Your task to perform on an android device: see creations saved in the google photos Image 0: 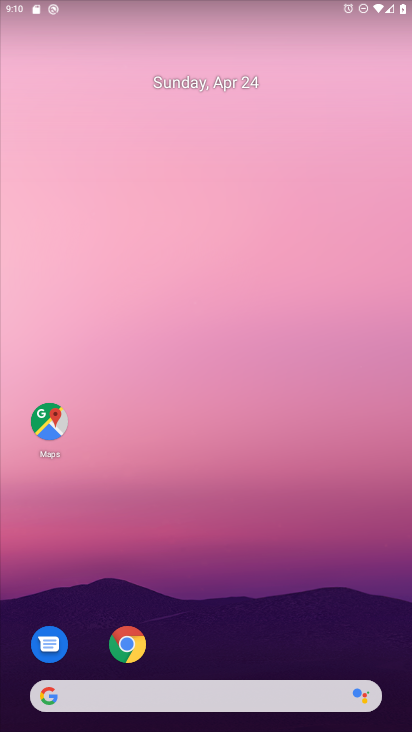
Step 0: drag from (216, 668) to (0, 160)
Your task to perform on an android device: see creations saved in the google photos Image 1: 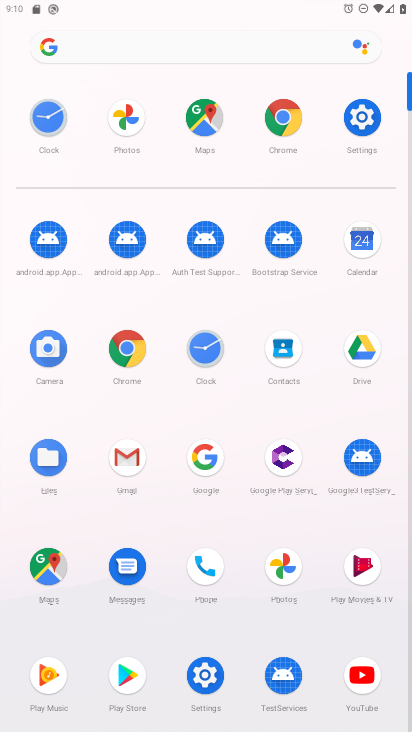
Step 1: click (291, 574)
Your task to perform on an android device: see creations saved in the google photos Image 2: 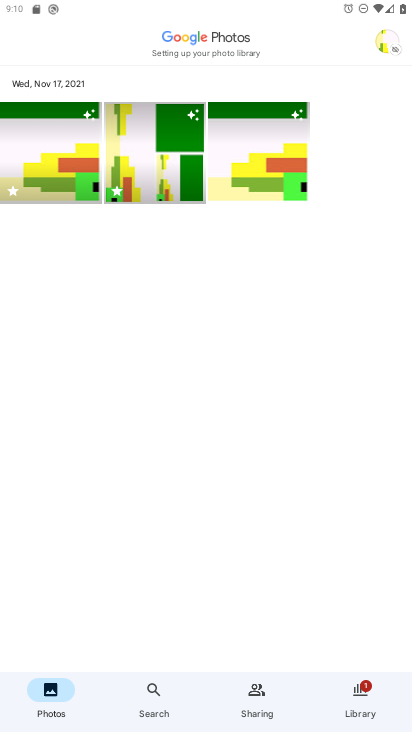
Step 2: click (347, 696)
Your task to perform on an android device: see creations saved in the google photos Image 3: 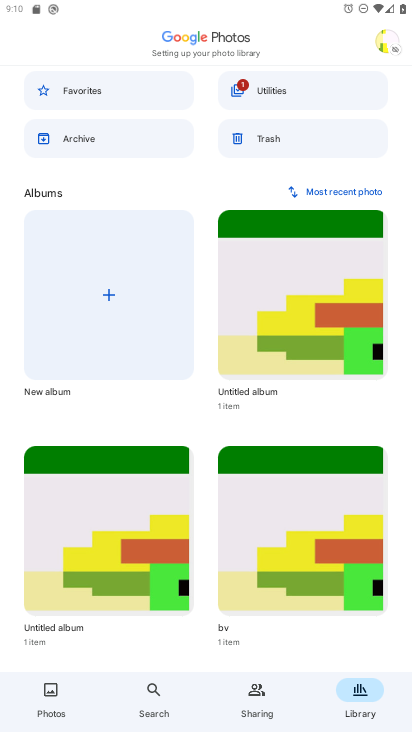
Step 3: drag from (207, 603) to (200, 99)
Your task to perform on an android device: see creations saved in the google photos Image 4: 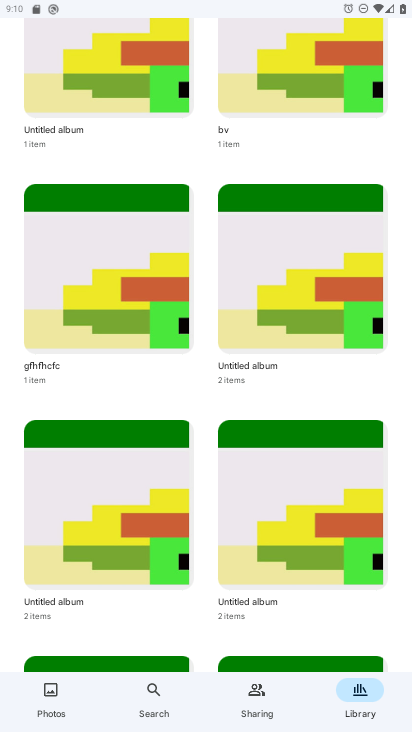
Step 4: drag from (254, 564) to (241, 305)
Your task to perform on an android device: see creations saved in the google photos Image 5: 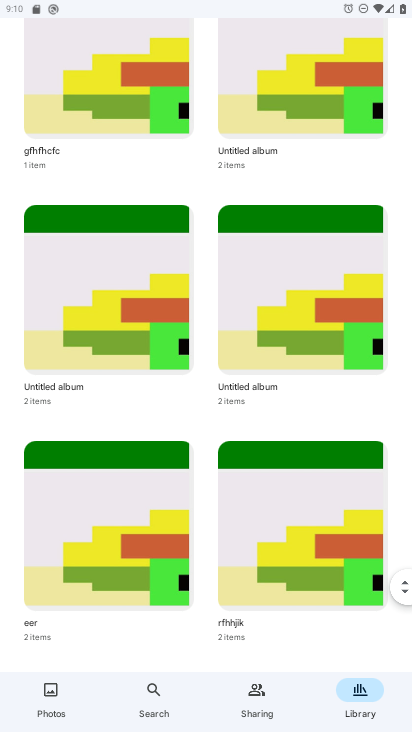
Step 5: click (269, 701)
Your task to perform on an android device: see creations saved in the google photos Image 6: 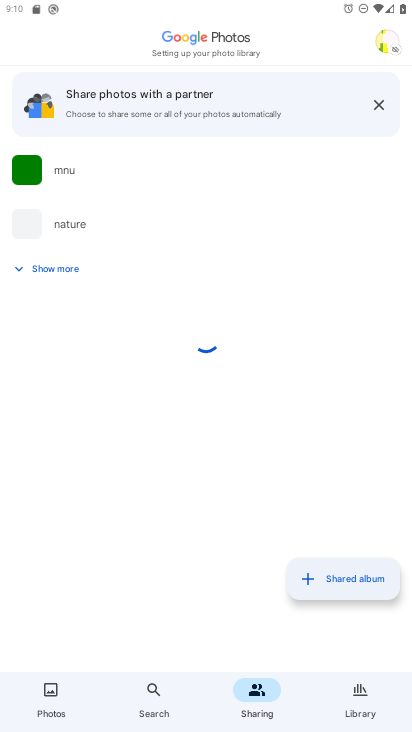
Step 6: click (377, 99)
Your task to perform on an android device: see creations saved in the google photos Image 7: 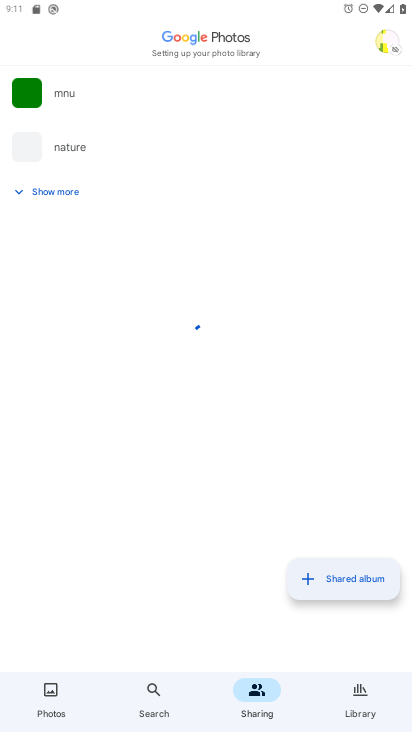
Step 7: click (23, 188)
Your task to perform on an android device: see creations saved in the google photos Image 8: 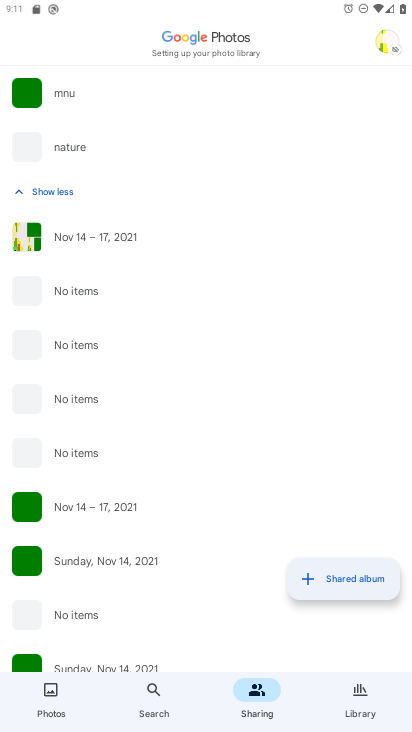
Step 8: drag from (170, 547) to (106, 0)
Your task to perform on an android device: see creations saved in the google photos Image 9: 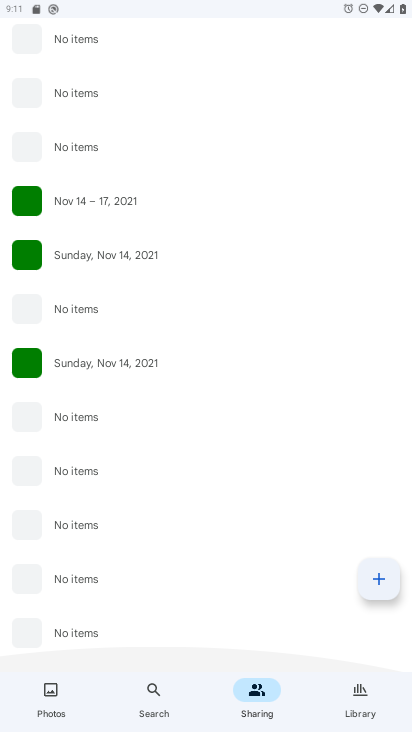
Step 9: drag from (130, 612) to (98, 138)
Your task to perform on an android device: see creations saved in the google photos Image 10: 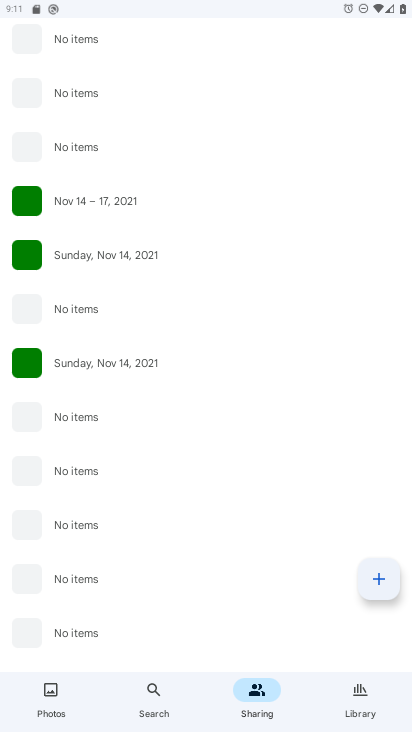
Step 10: click (154, 720)
Your task to perform on an android device: see creations saved in the google photos Image 11: 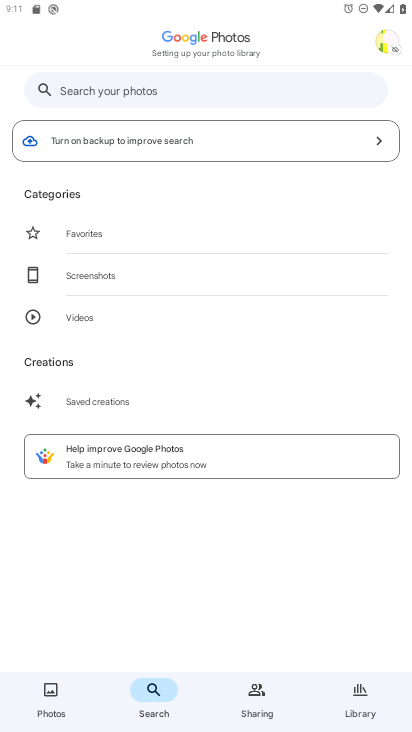
Step 11: click (54, 402)
Your task to perform on an android device: see creations saved in the google photos Image 12: 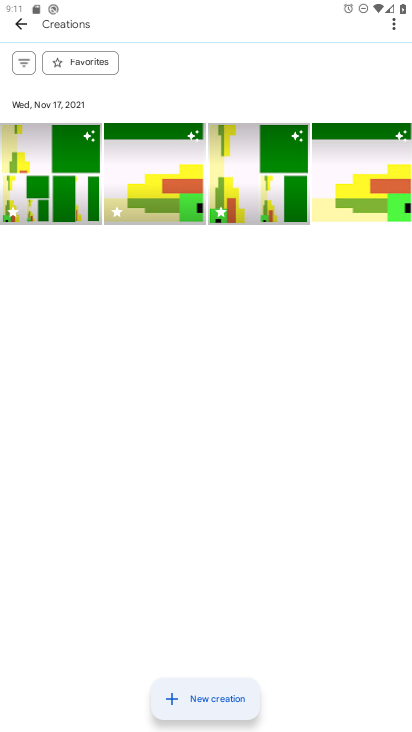
Step 12: task complete